Your task to perform on an android device: turn on the 24-hour format for clock Image 0: 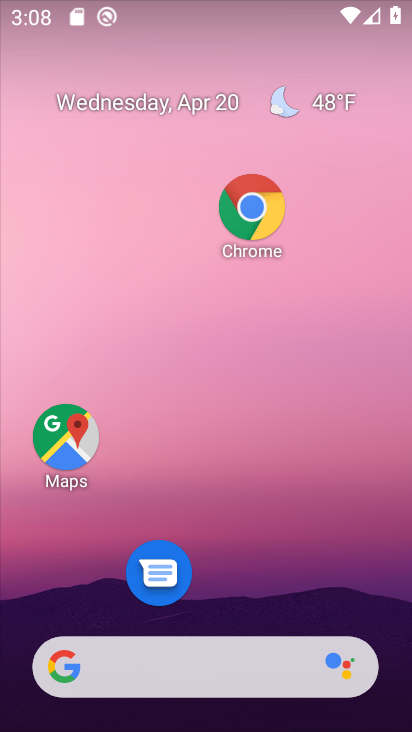
Step 0: drag from (247, 503) to (236, 133)
Your task to perform on an android device: turn on the 24-hour format for clock Image 1: 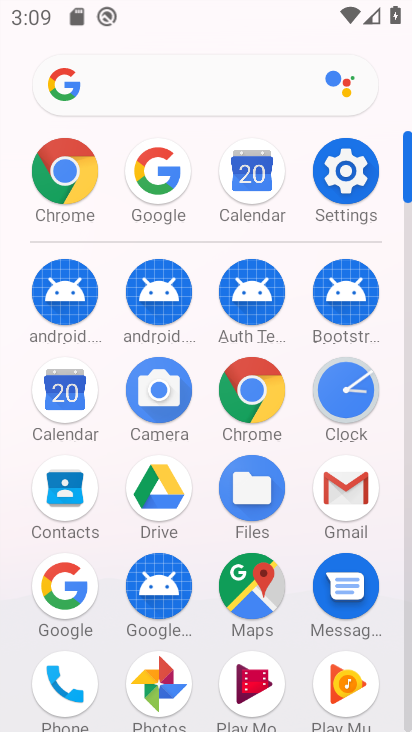
Step 1: click (356, 392)
Your task to perform on an android device: turn on the 24-hour format for clock Image 2: 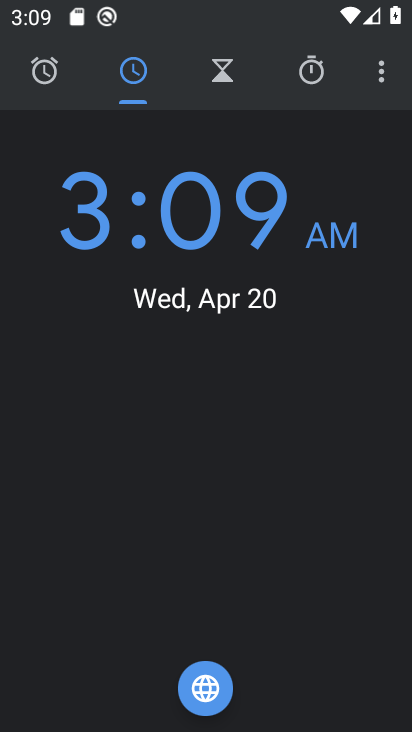
Step 2: click (384, 94)
Your task to perform on an android device: turn on the 24-hour format for clock Image 3: 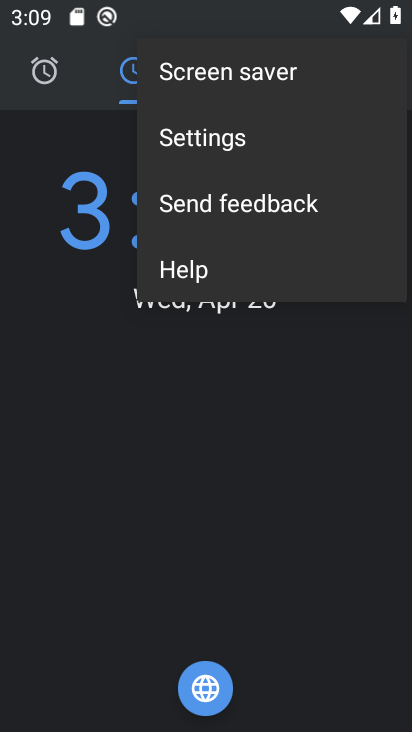
Step 3: click (235, 142)
Your task to perform on an android device: turn on the 24-hour format for clock Image 4: 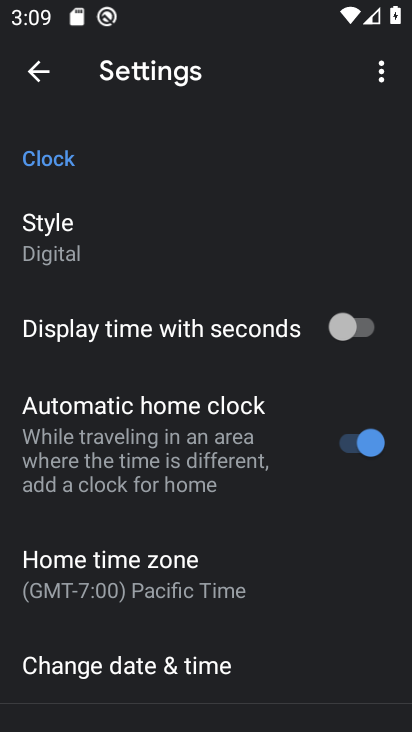
Step 4: click (192, 662)
Your task to perform on an android device: turn on the 24-hour format for clock Image 5: 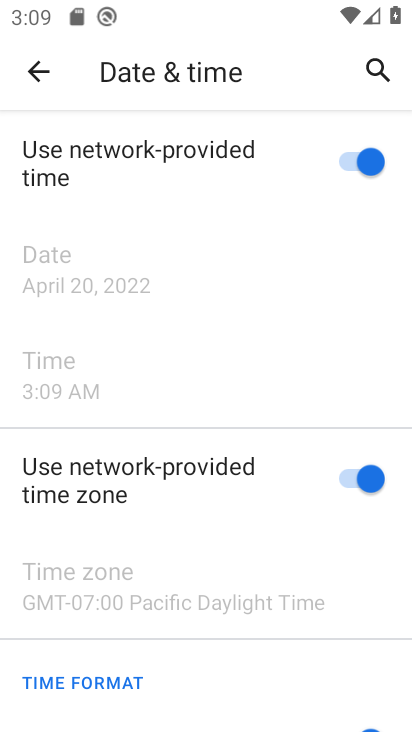
Step 5: task complete